Your task to perform on an android device: Add usb-a to the cart on newegg, then select checkout. Image 0: 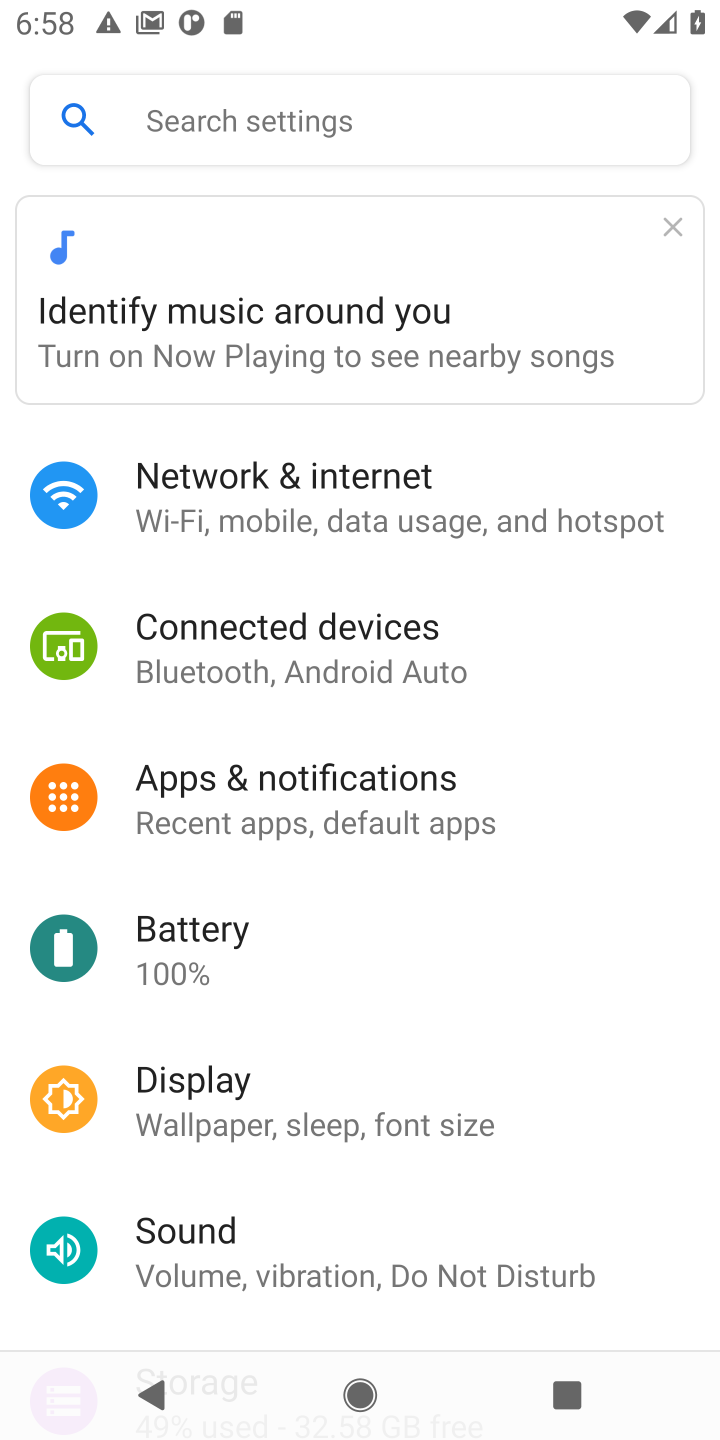
Step 0: press home button
Your task to perform on an android device: Add usb-a to the cart on newegg, then select checkout. Image 1: 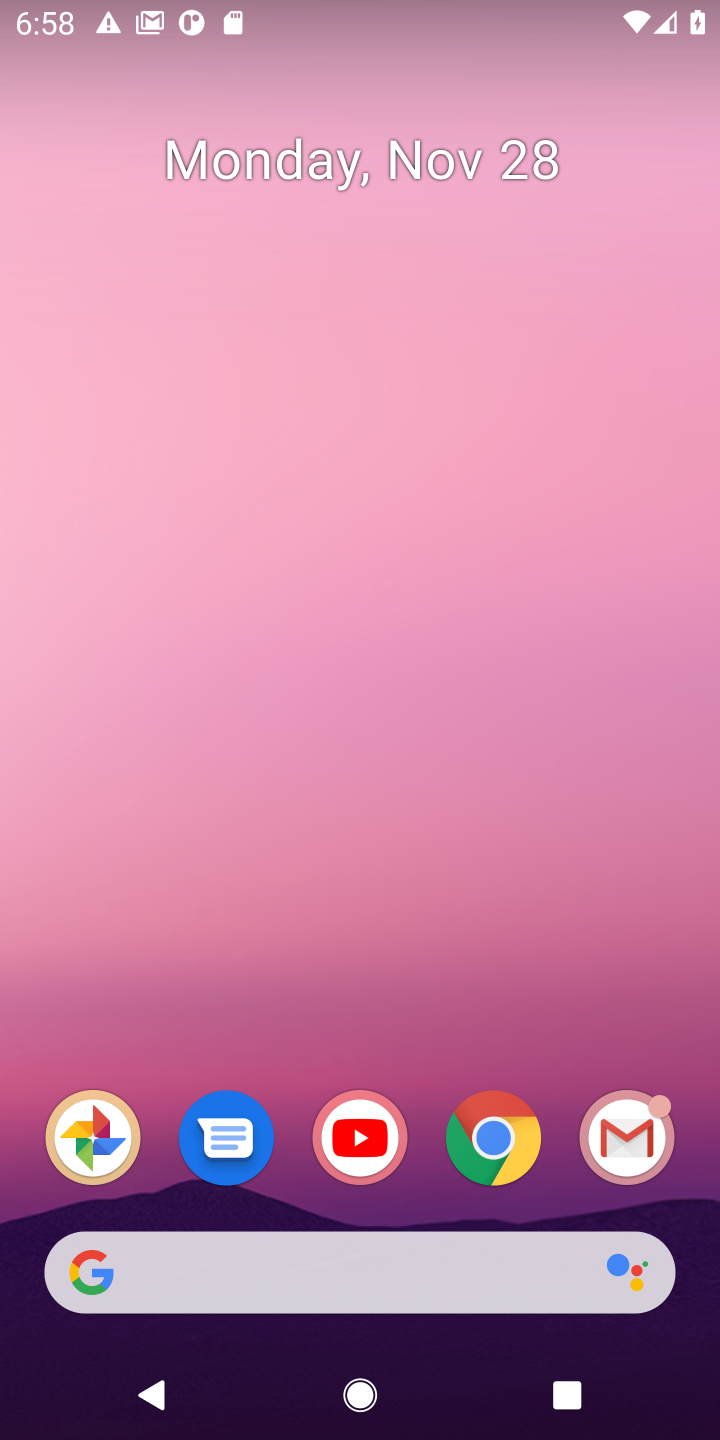
Step 1: click (494, 1136)
Your task to perform on an android device: Add usb-a to the cart on newegg, then select checkout. Image 2: 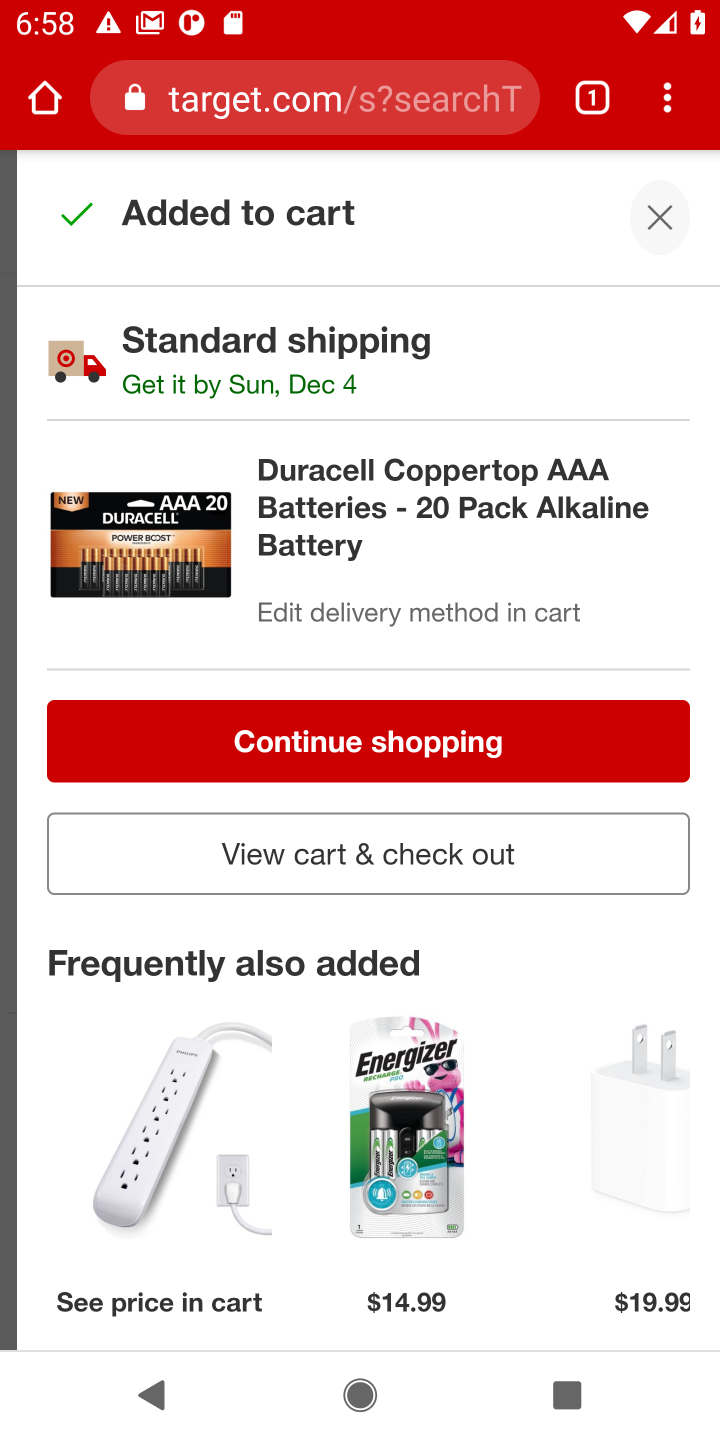
Step 2: click (273, 102)
Your task to perform on an android device: Add usb-a to the cart on newegg, then select checkout. Image 3: 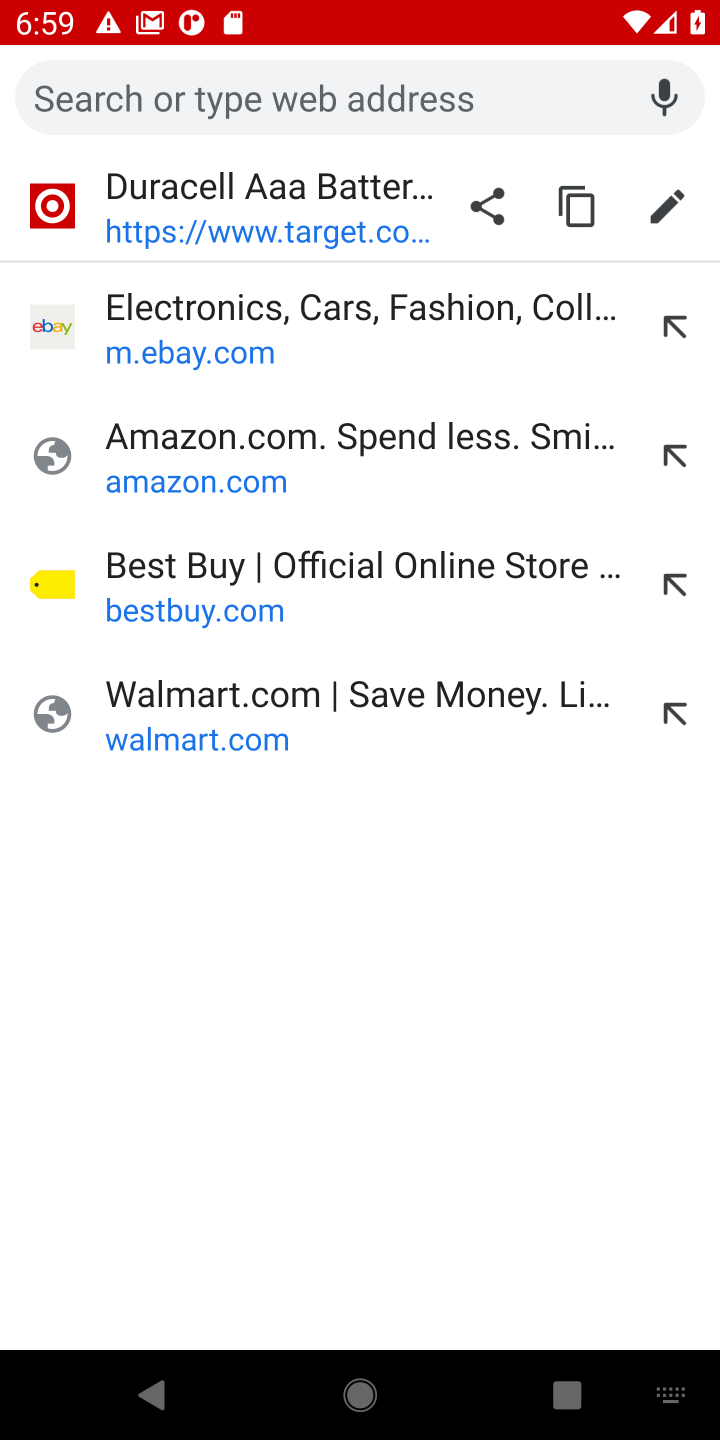
Step 3: type "newegg.com"
Your task to perform on an android device: Add usb-a to the cart on newegg, then select checkout. Image 4: 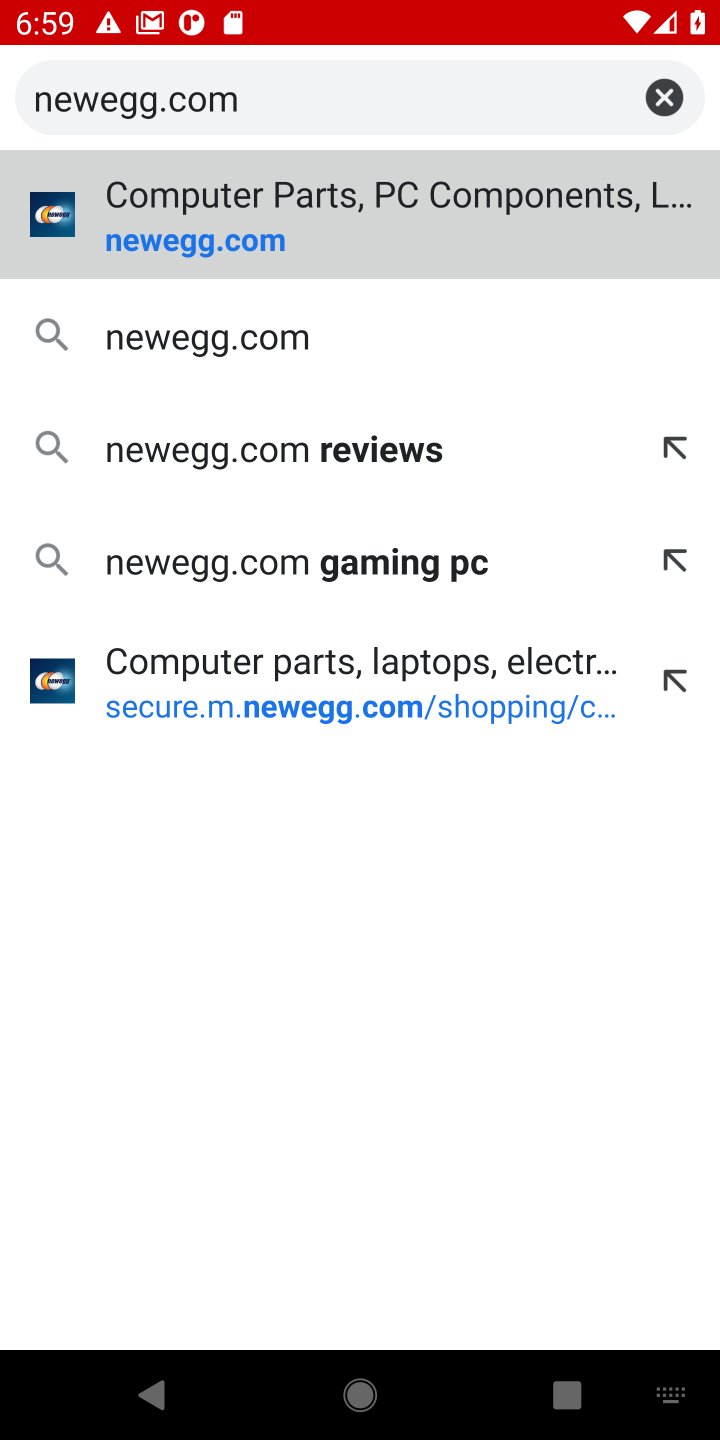
Step 4: click (211, 243)
Your task to perform on an android device: Add usb-a to the cart on newegg, then select checkout. Image 5: 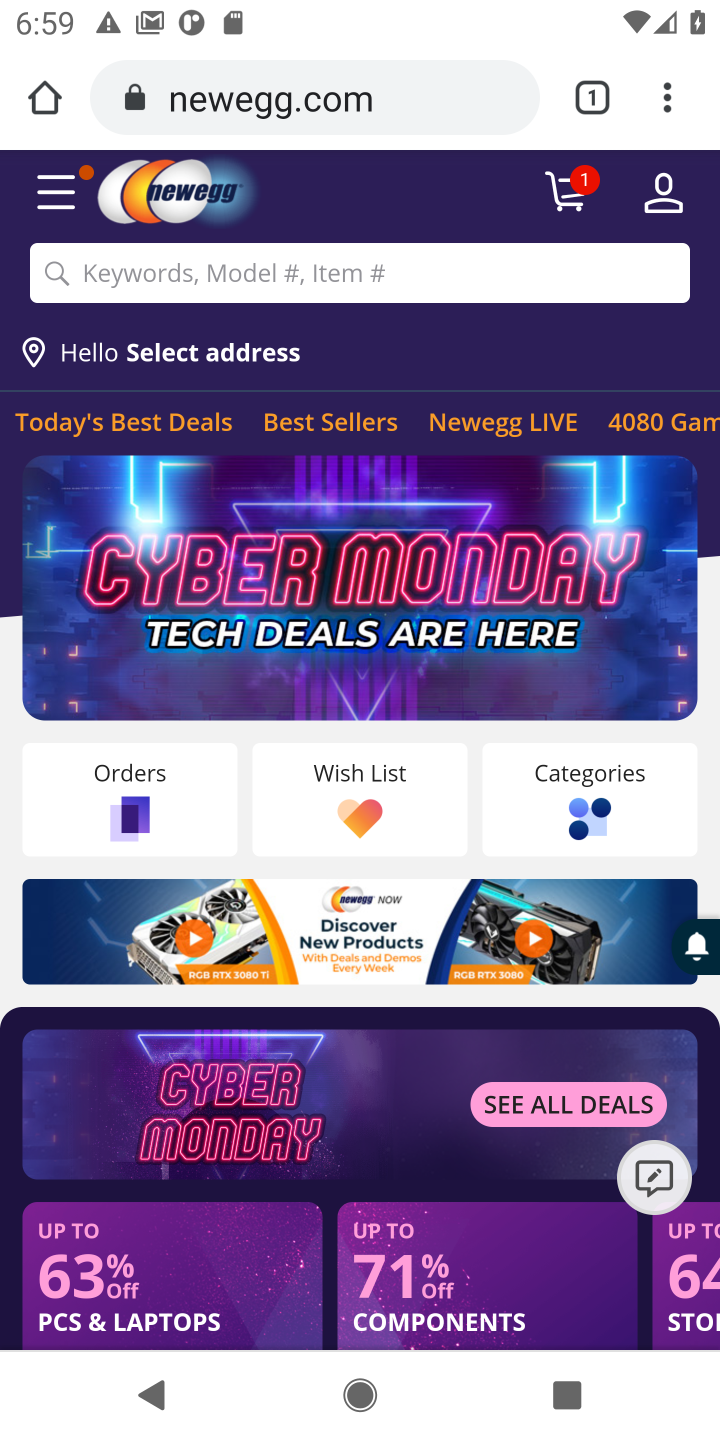
Step 5: click (252, 290)
Your task to perform on an android device: Add usb-a to the cart on newegg, then select checkout. Image 6: 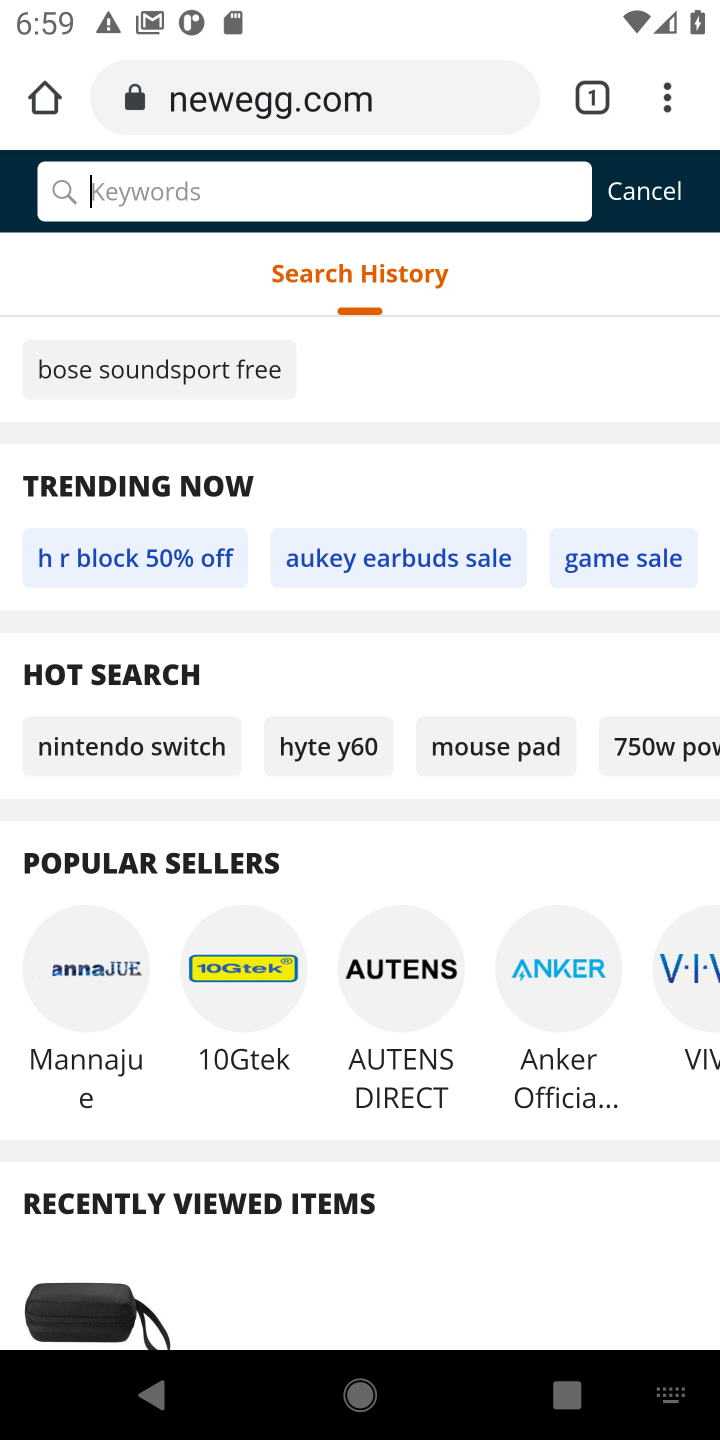
Step 6: type "usb-a "
Your task to perform on an android device: Add usb-a to the cart on newegg, then select checkout. Image 7: 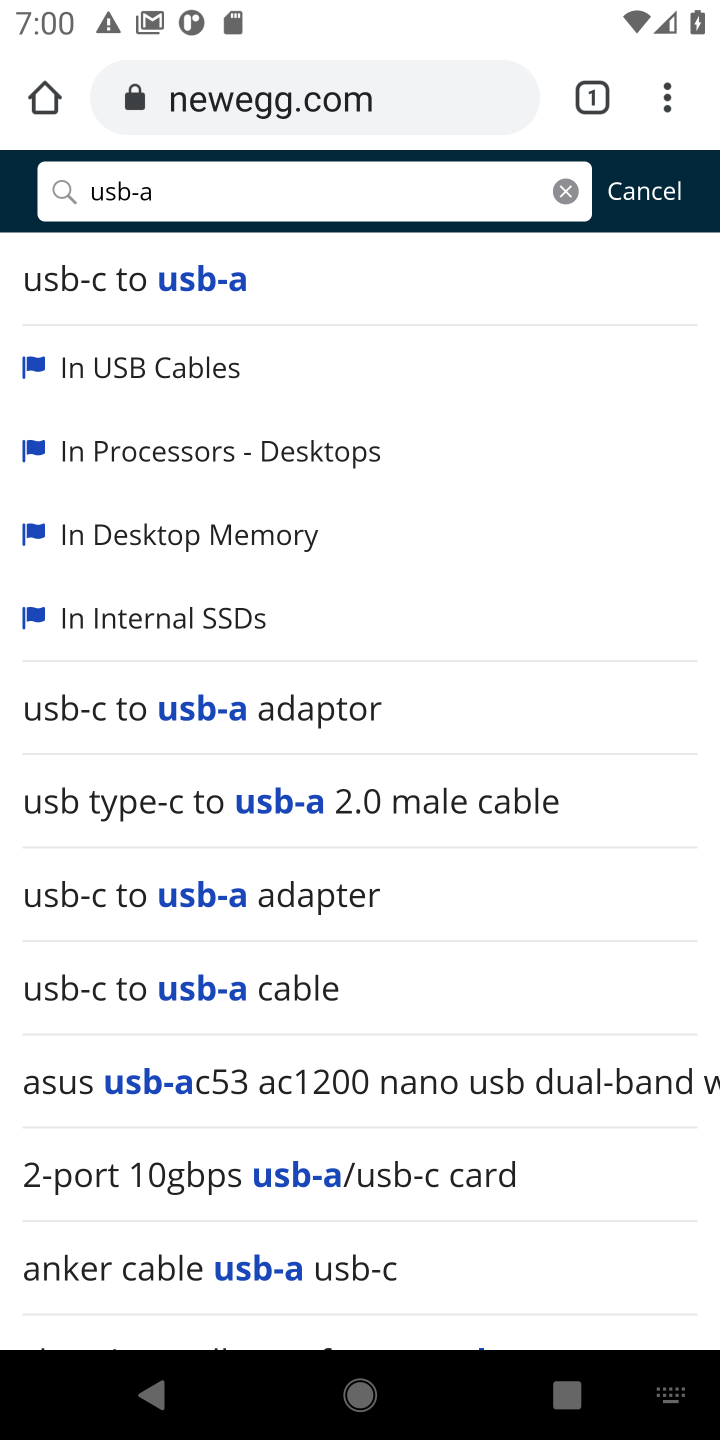
Step 7: drag from (354, 839) to (355, 523)
Your task to perform on an android device: Add usb-a to the cart on newegg, then select checkout. Image 8: 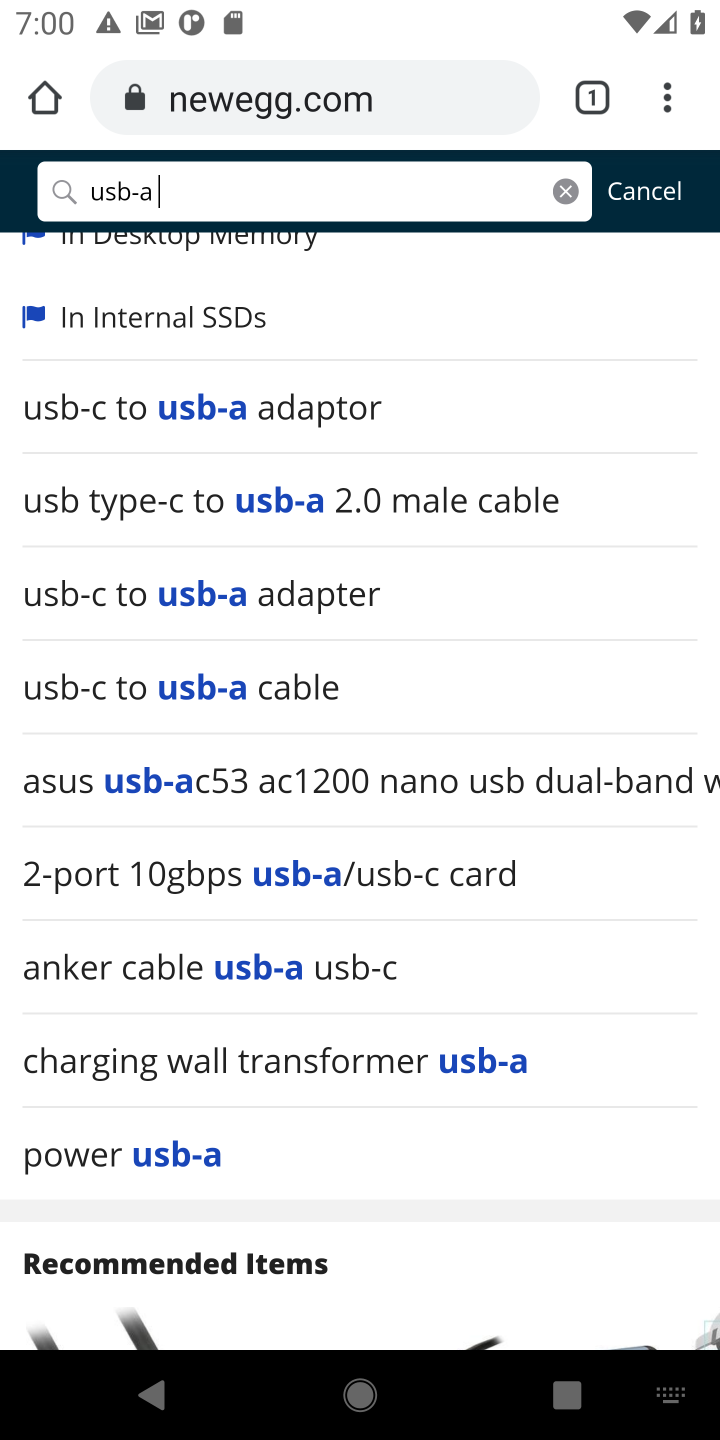
Step 8: click (156, 1138)
Your task to perform on an android device: Add usb-a to the cart on newegg, then select checkout. Image 9: 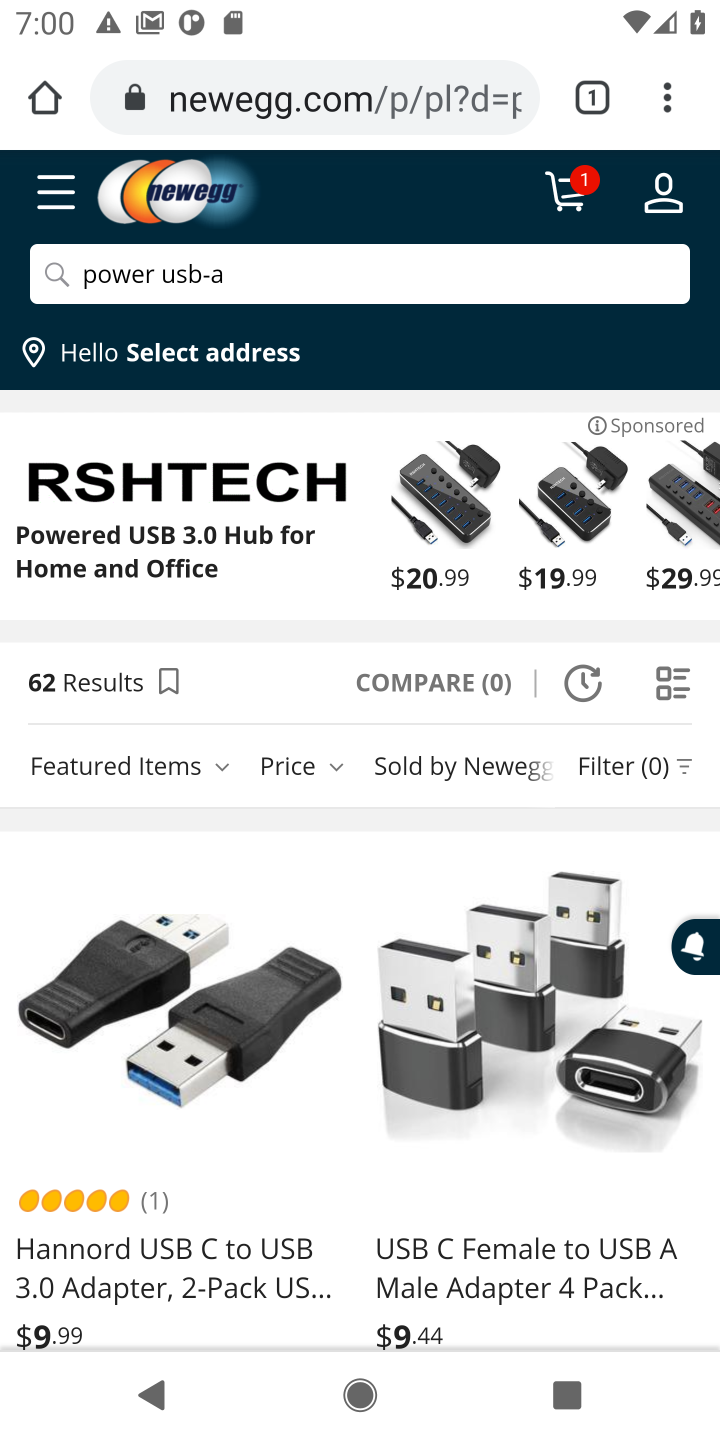
Step 9: drag from (201, 1200) to (208, 990)
Your task to perform on an android device: Add usb-a to the cart on newegg, then select checkout. Image 10: 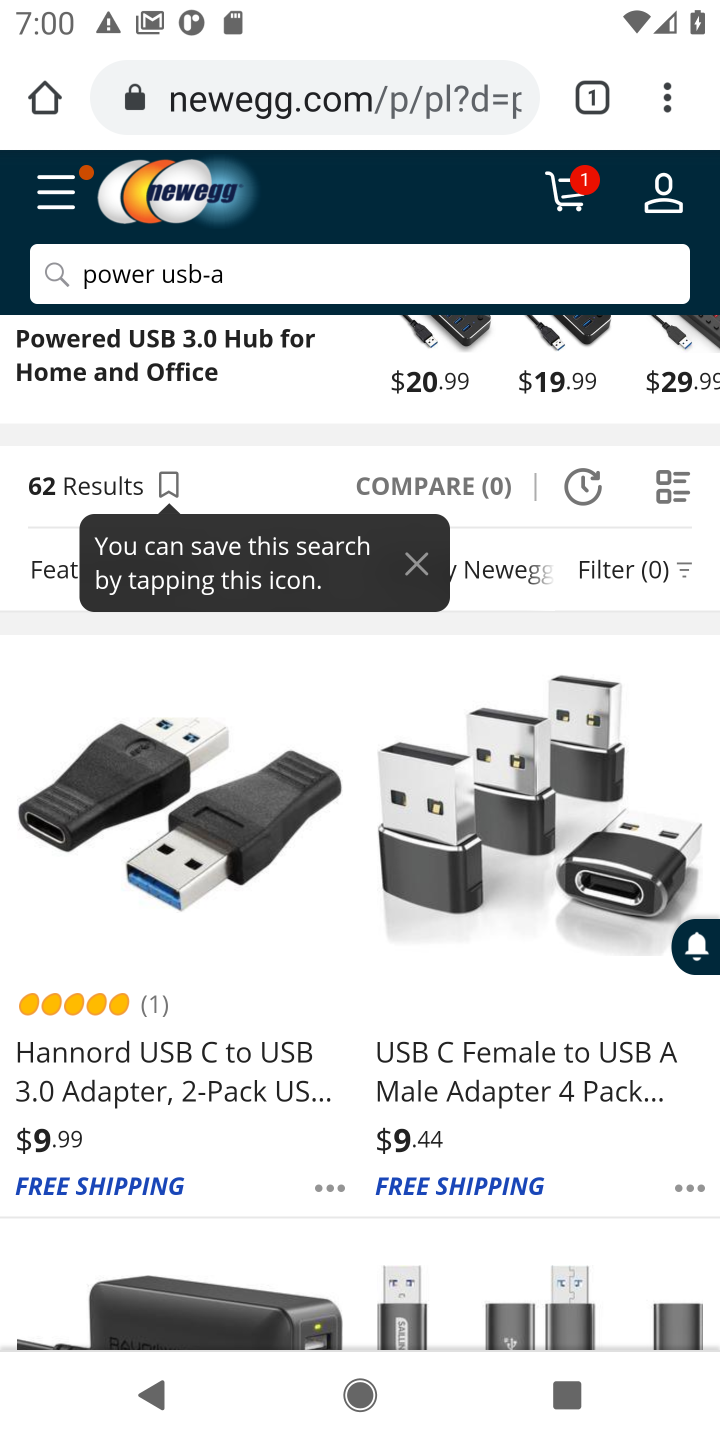
Step 10: click (523, 982)
Your task to perform on an android device: Add usb-a to the cart on newegg, then select checkout. Image 11: 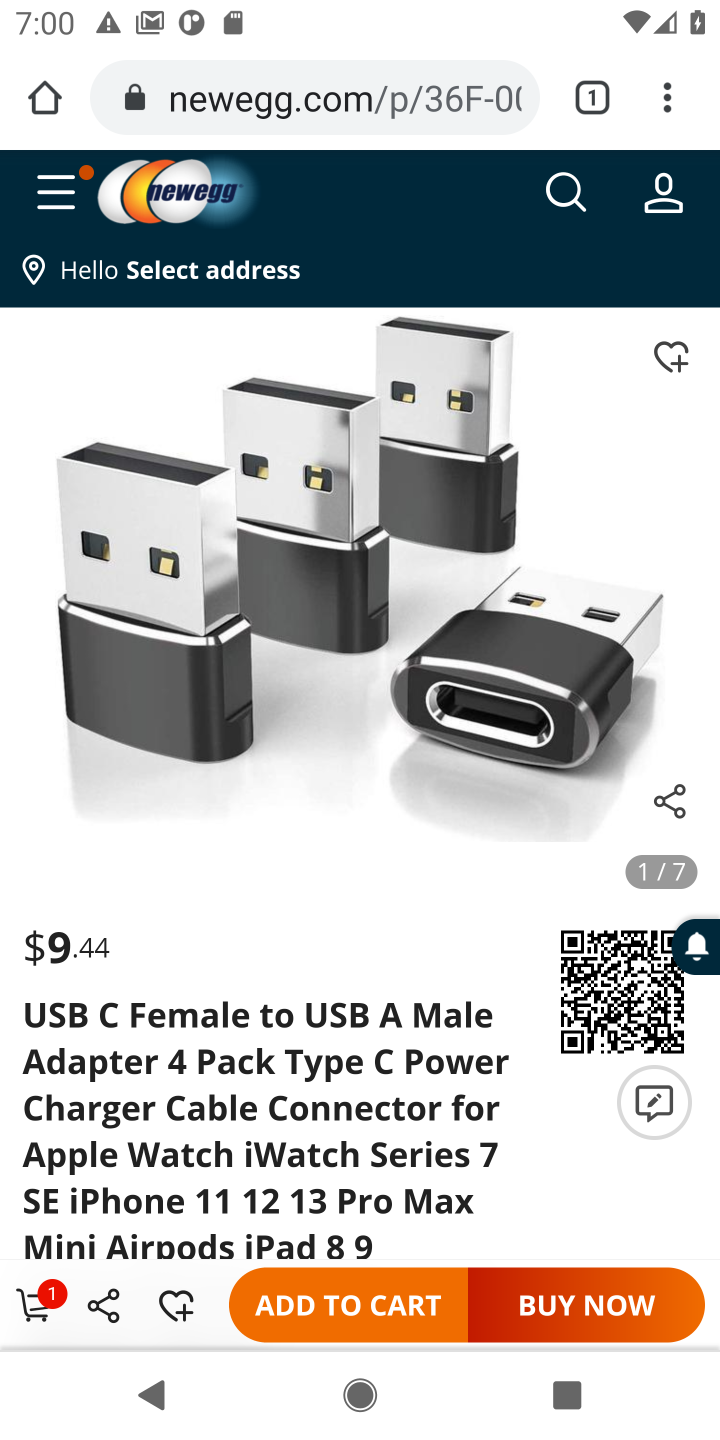
Step 11: click (334, 1327)
Your task to perform on an android device: Add usb-a to the cart on newegg, then select checkout. Image 12: 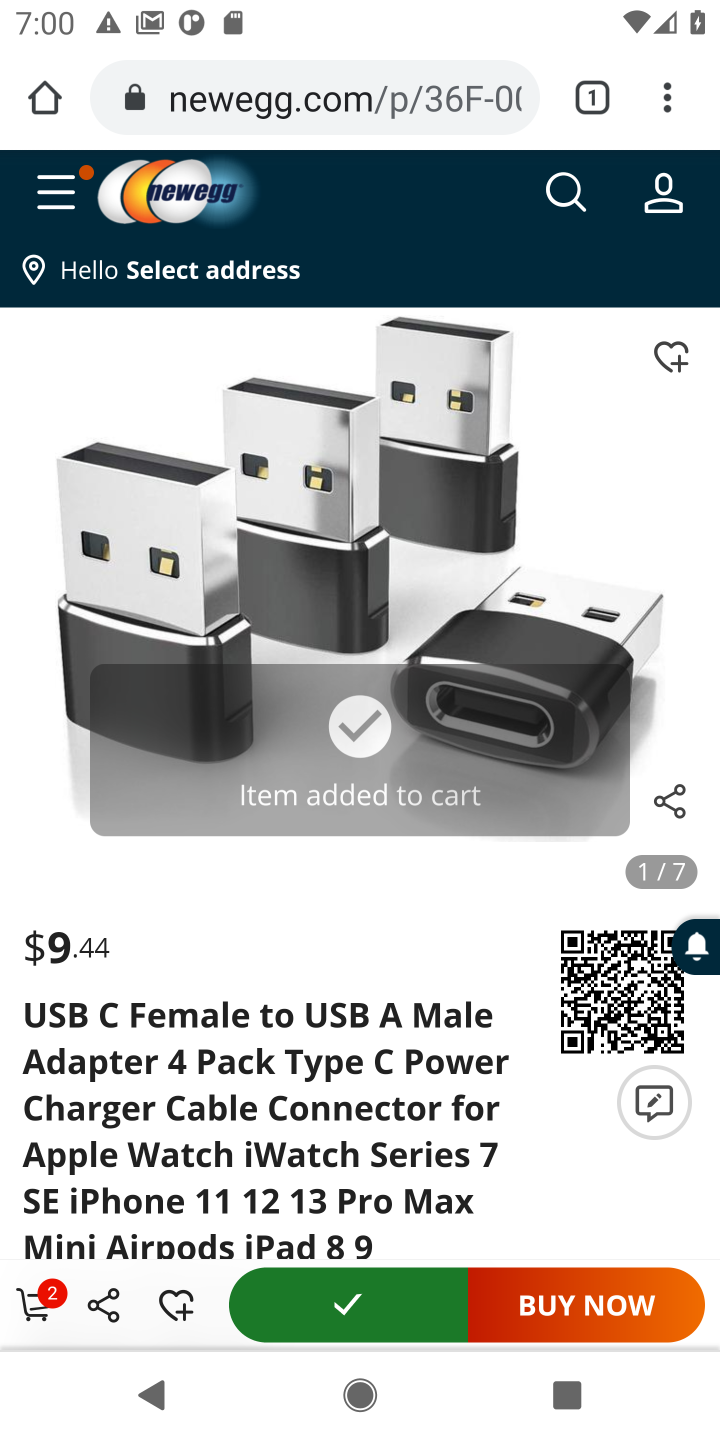
Step 12: click (46, 1313)
Your task to perform on an android device: Add usb-a to the cart on newegg, then select checkout. Image 13: 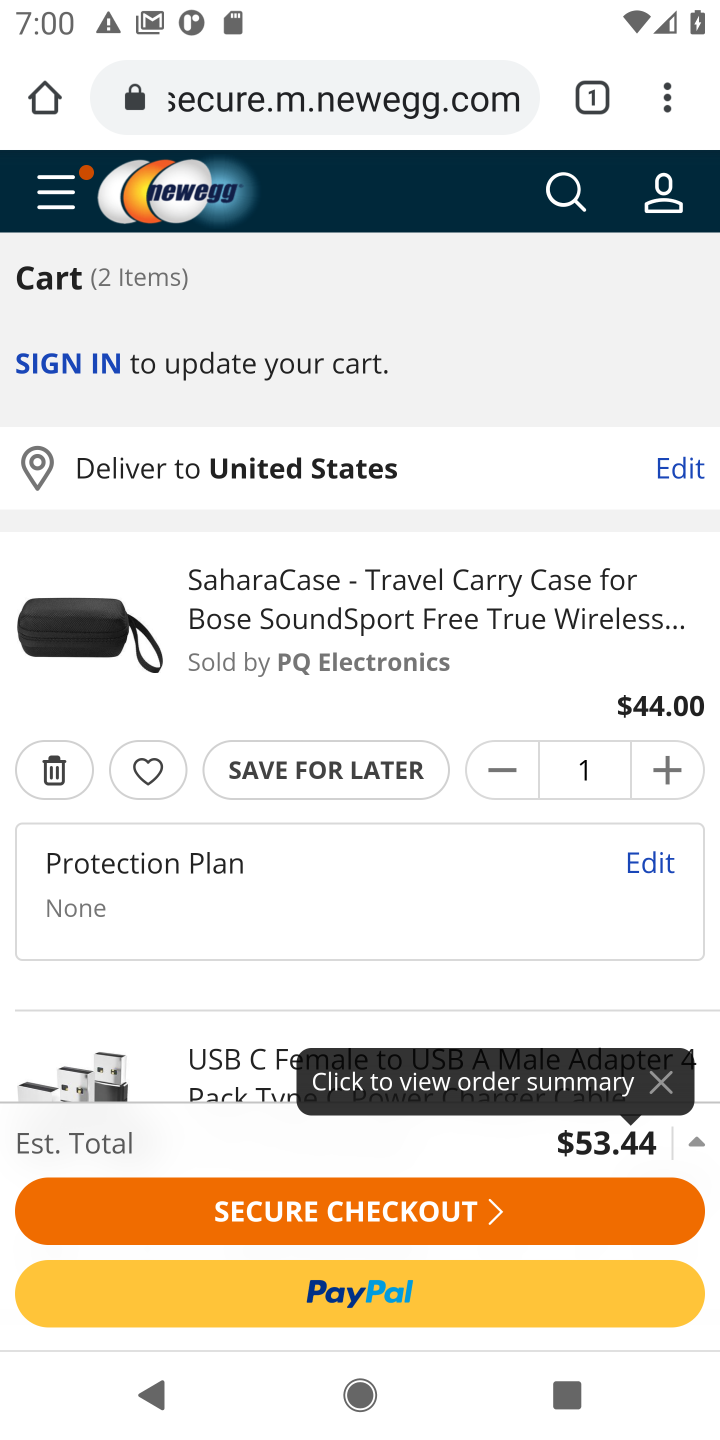
Step 13: click (346, 1222)
Your task to perform on an android device: Add usb-a to the cart on newegg, then select checkout. Image 14: 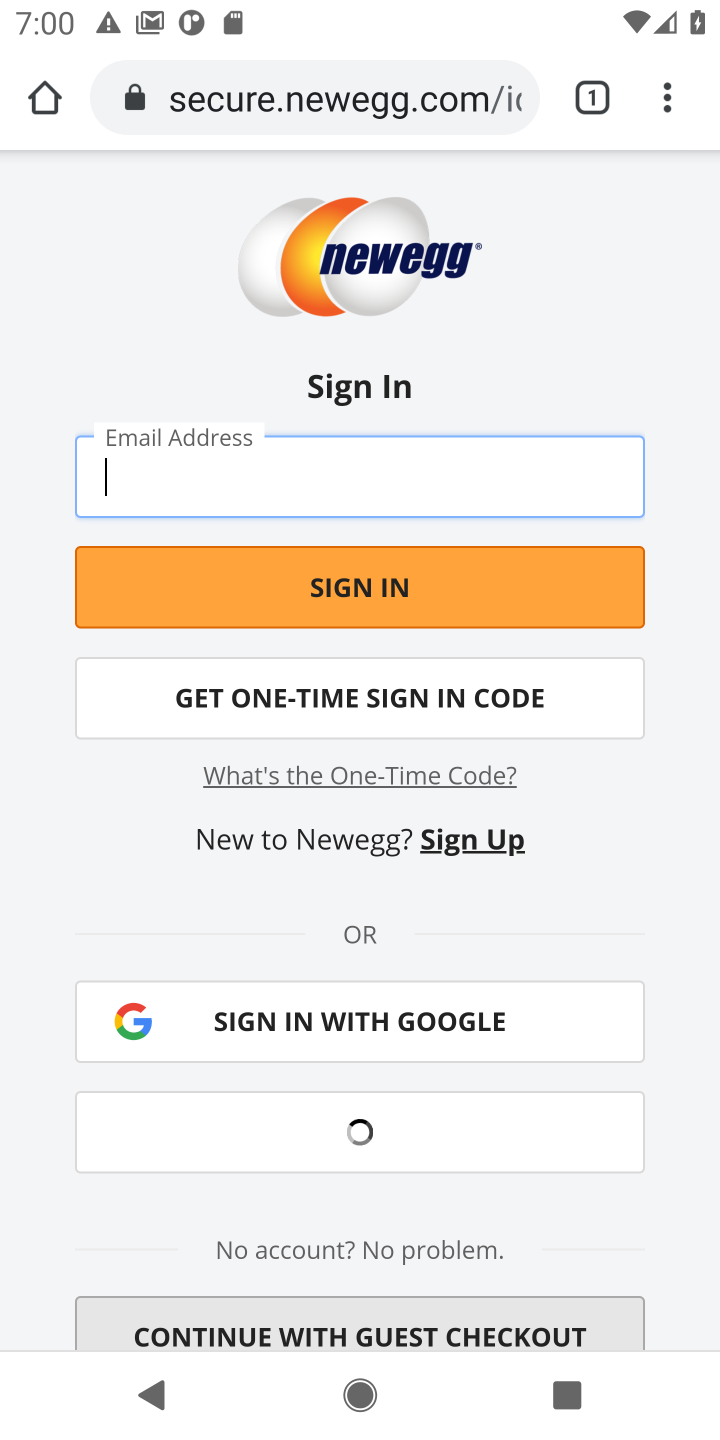
Step 14: task complete